Your task to perform on an android device: refresh tabs in the chrome app Image 0: 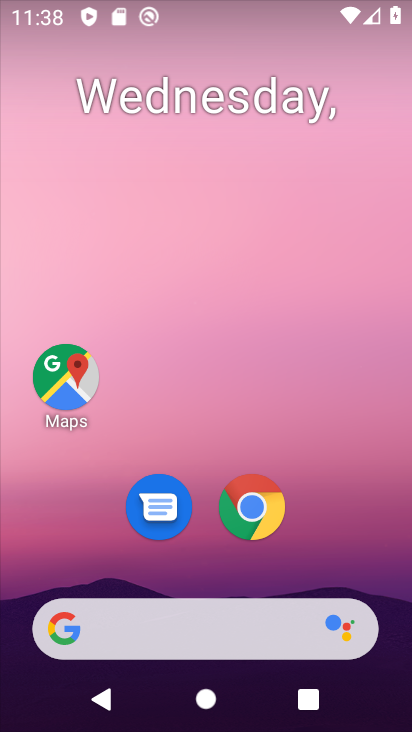
Step 0: click (227, 498)
Your task to perform on an android device: refresh tabs in the chrome app Image 1: 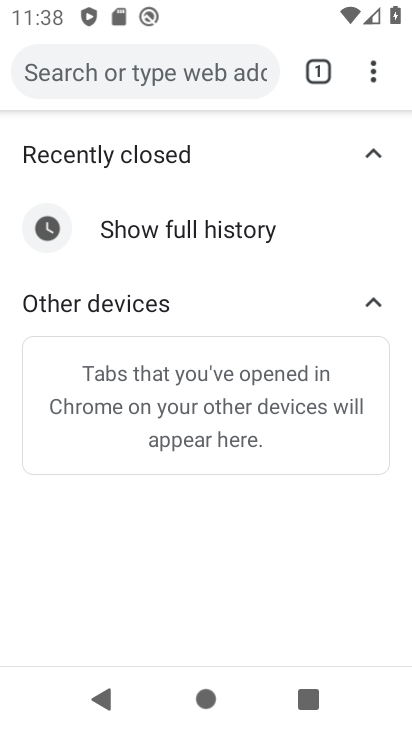
Step 1: click (366, 74)
Your task to perform on an android device: refresh tabs in the chrome app Image 2: 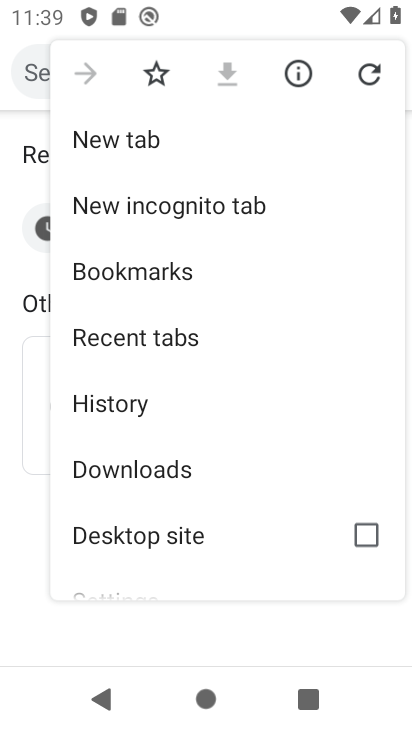
Step 2: drag from (186, 467) to (171, 521)
Your task to perform on an android device: refresh tabs in the chrome app Image 3: 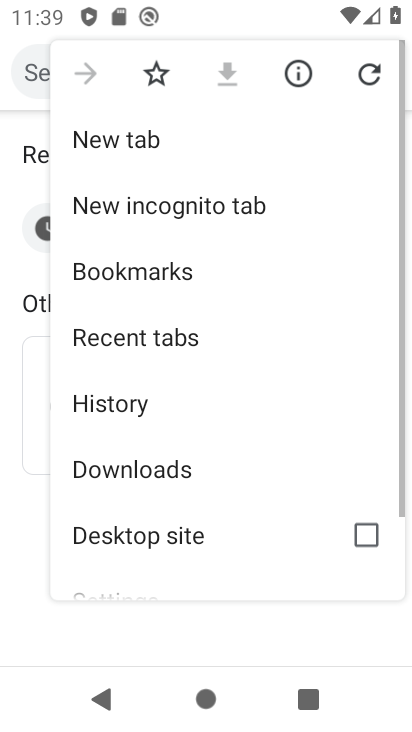
Step 3: click (361, 84)
Your task to perform on an android device: refresh tabs in the chrome app Image 4: 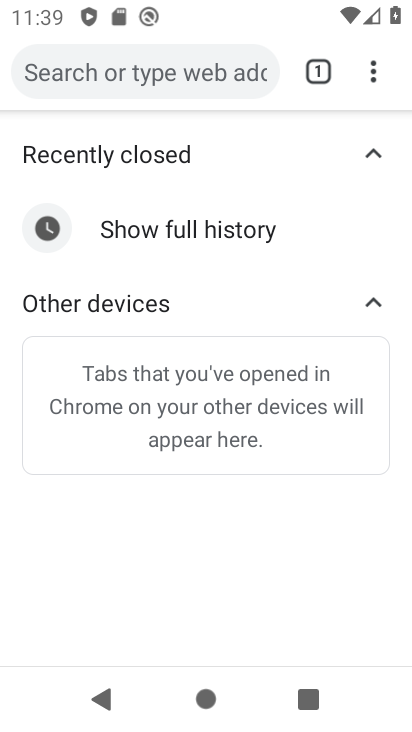
Step 4: task complete